Your task to perform on an android device: turn off notifications settings in the gmail app Image 0: 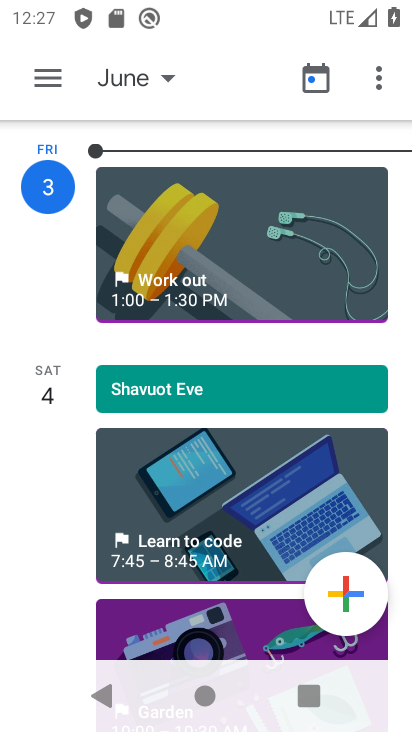
Step 0: press home button
Your task to perform on an android device: turn off notifications settings in the gmail app Image 1: 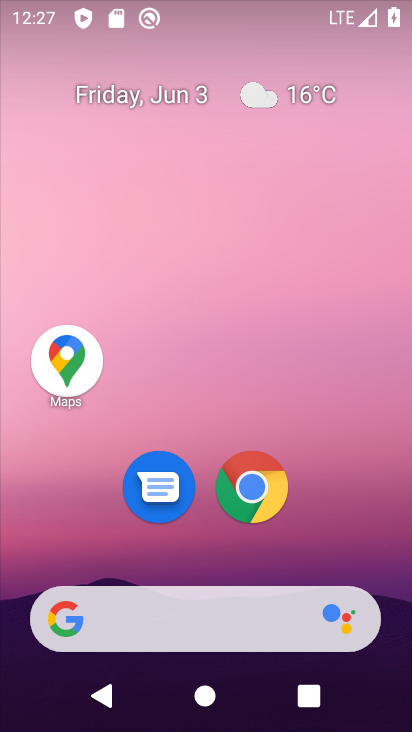
Step 1: drag from (337, 457) to (286, 2)
Your task to perform on an android device: turn off notifications settings in the gmail app Image 2: 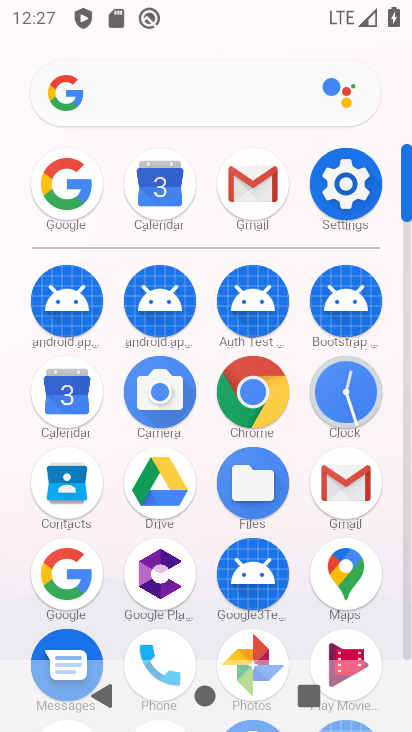
Step 2: click (251, 185)
Your task to perform on an android device: turn off notifications settings in the gmail app Image 3: 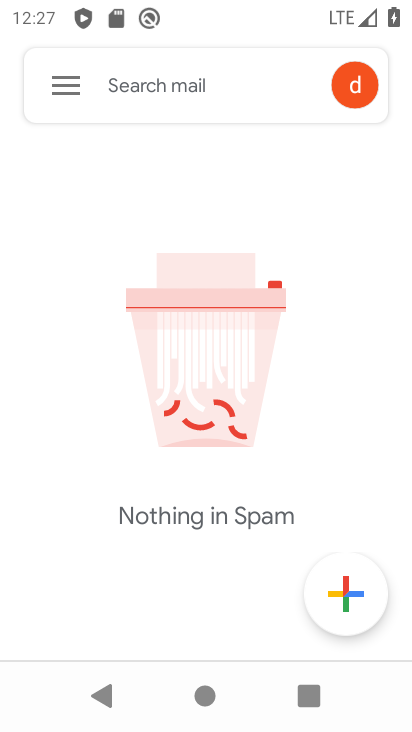
Step 3: click (62, 88)
Your task to perform on an android device: turn off notifications settings in the gmail app Image 4: 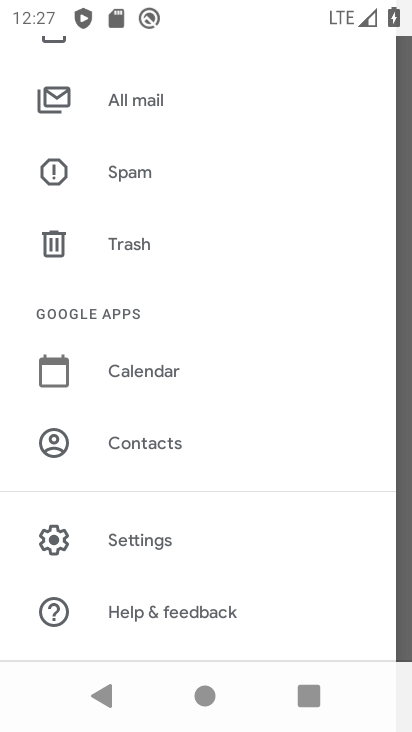
Step 4: click (126, 545)
Your task to perform on an android device: turn off notifications settings in the gmail app Image 5: 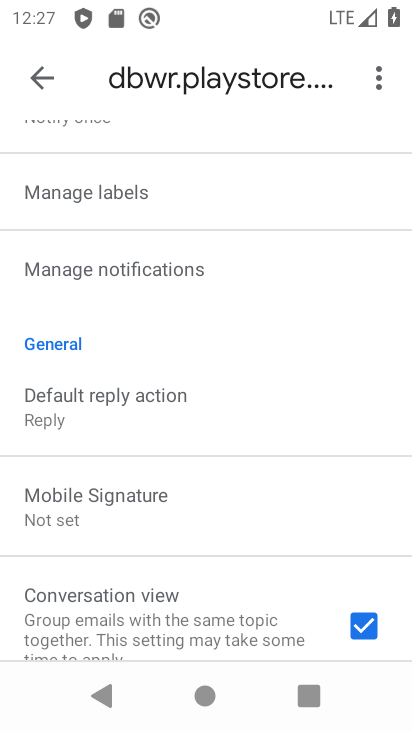
Step 5: click (177, 266)
Your task to perform on an android device: turn off notifications settings in the gmail app Image 6: 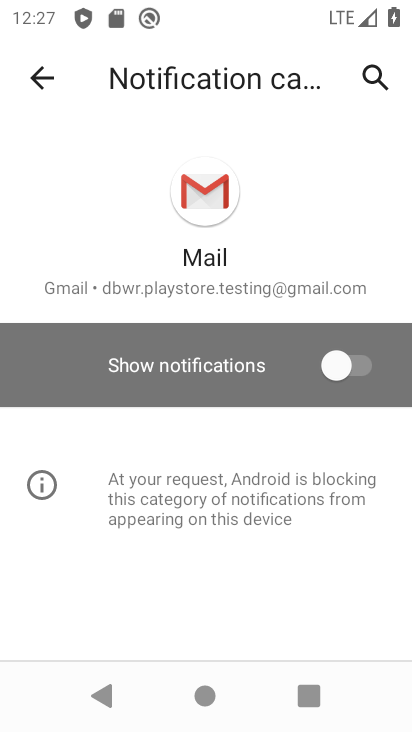
Step 6: task complete